Your task to perform on an android device: turn pop-ups off in chrome Image 0: 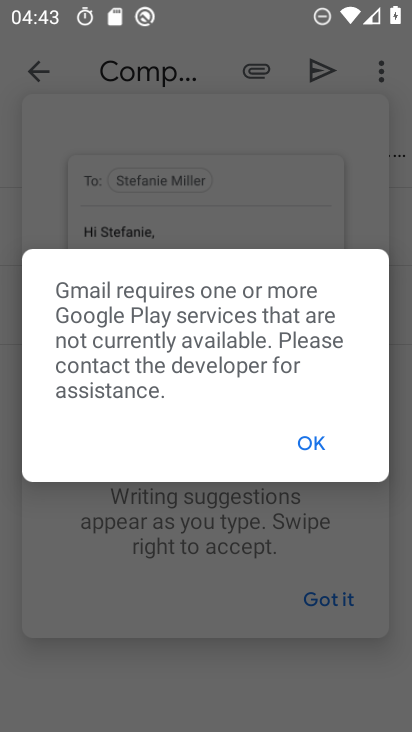
Step 0: press home button
Your task to perform on an android device: turn pop-ups off in chrome Image 1: 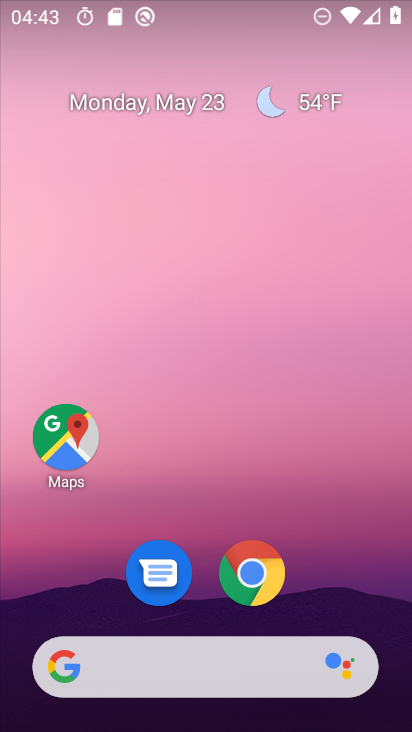
Step 1: click (254, 571)
Your task to perform on an android device: turn pop-ups off in chrome Image 2: 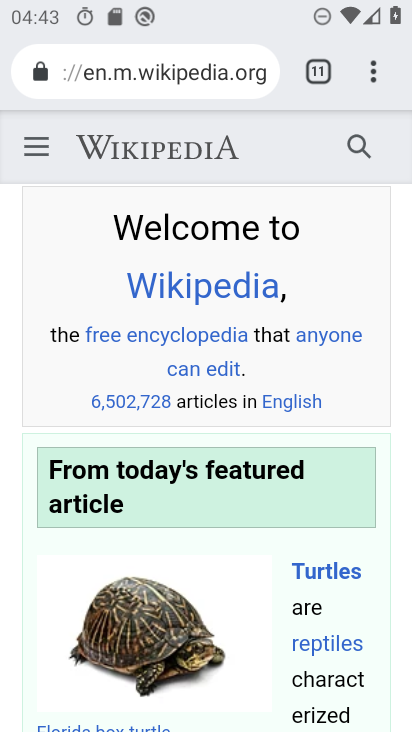
Step 2: click (383, 70)
Your task to perform on an android device: turn pop-ups off in chrome Image 3: 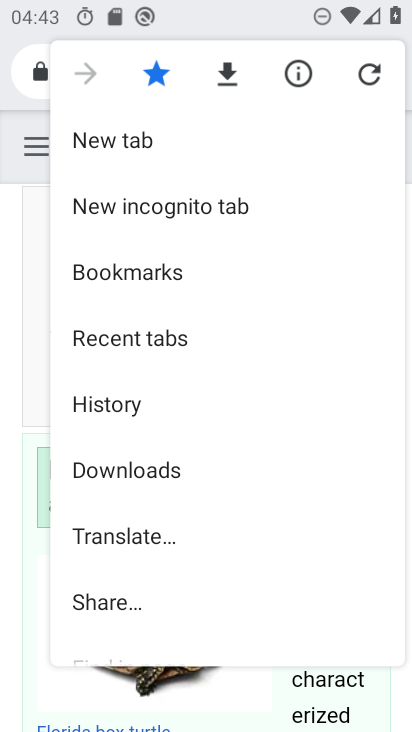
Step 3: drag from (196, 540) to (187, 219)
Your task to perform on an android device: turn pop-ups off in chrome Image 4: 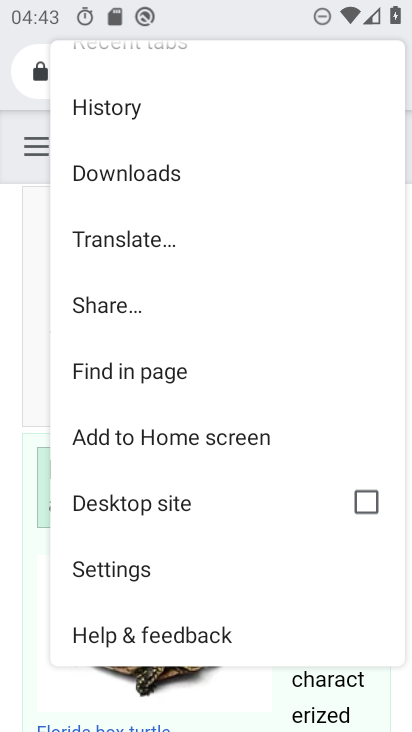
Step 4: click (125, 575)
Your task to perform on an android device: turn pop-ups off in chrome Image 5: 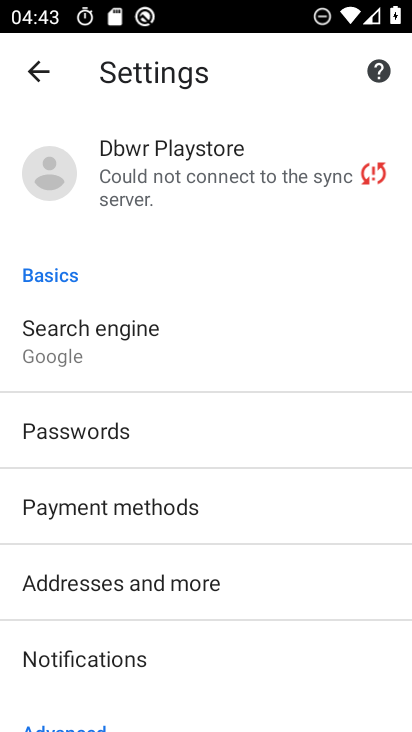
Step 5: drag from (281, 628) to (232, 178)
Your task to perform on an android device: turn pop-ups off in chrome Image 6: 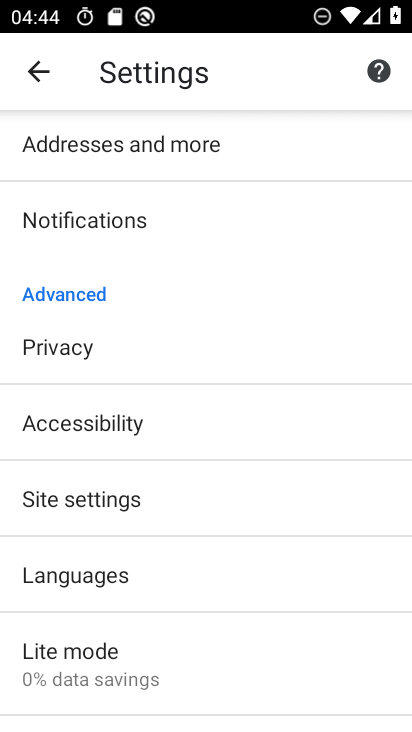
Step 6: click (160, 499)
Your task to perform on an android device: turn pop-ups off in chrome Image 7: 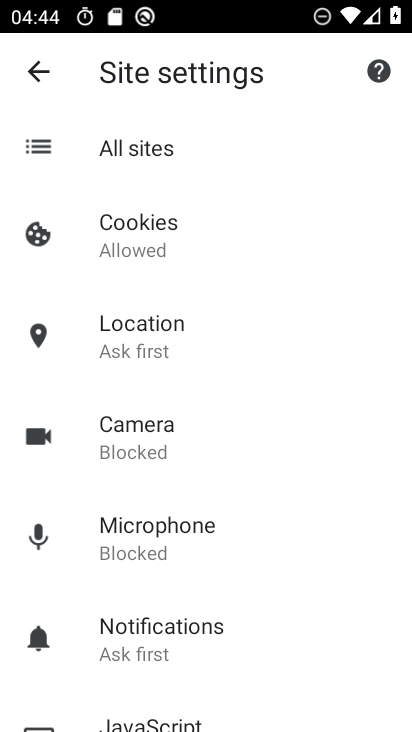
Step 7: drag from (232, 615) to (197, 292)
Your task to perform on an android device: turn pop-ups off in chrome Image 8: 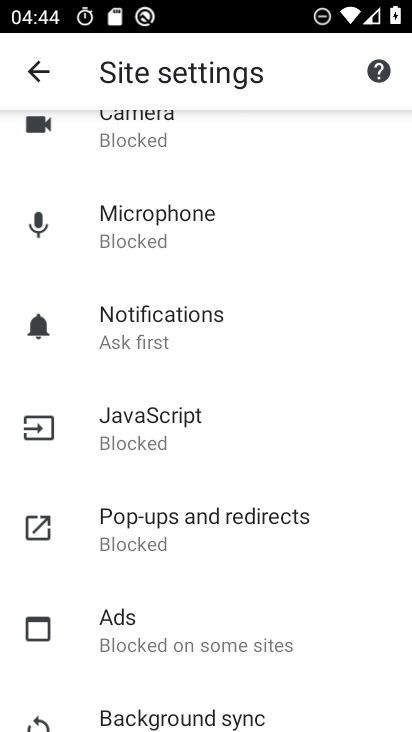
Step 8: click (210, 522)
Your task to perform on an android device: turn pop-ups off in chrome Image 9: 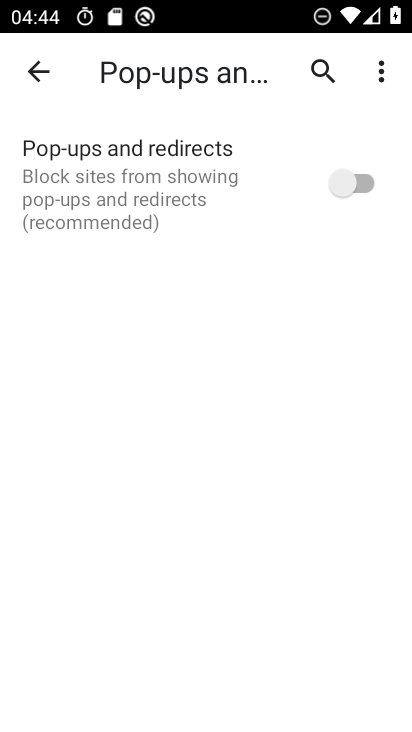
Step 9: task complete